Your task to perform on an android device: turn off improve location accuracy Image 0: 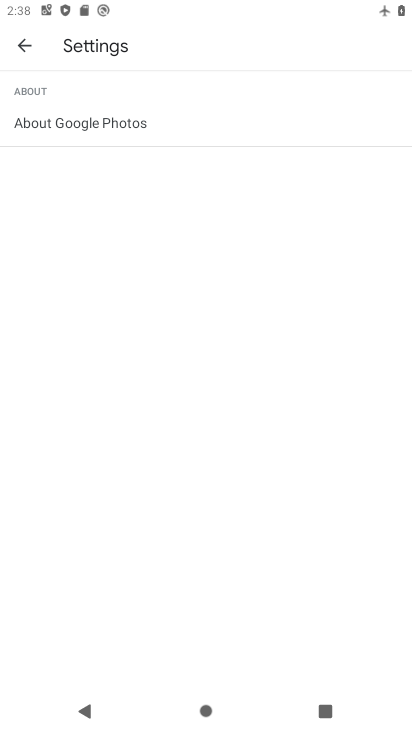
Step 0: press home button
Your task to perform on an android device: turn off improve location accuracy Image 1: 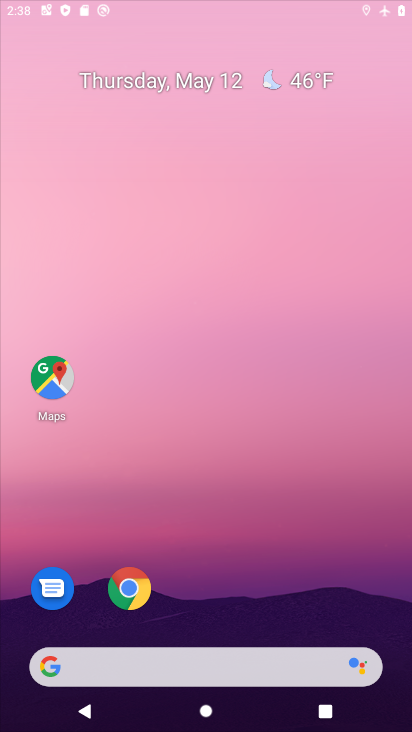
Step 1: drag from (375, 583) to (345, 63)
Your task to perform on an android device: turn off improve location accuracy Image 2: 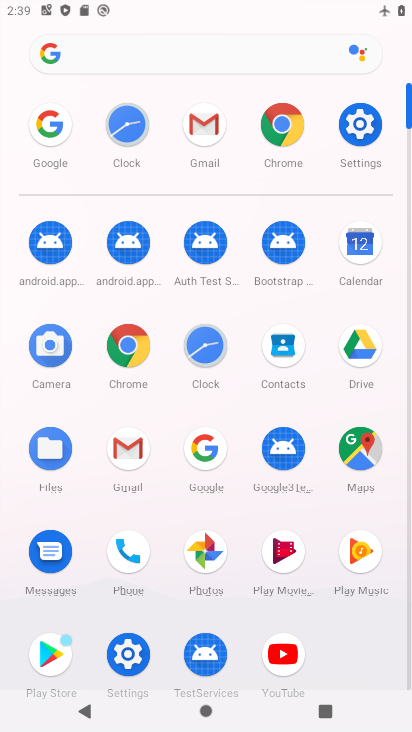
Step 2: click (111, 653)
Your task to perform on an android device: turn off improve location accuracy Image 3: 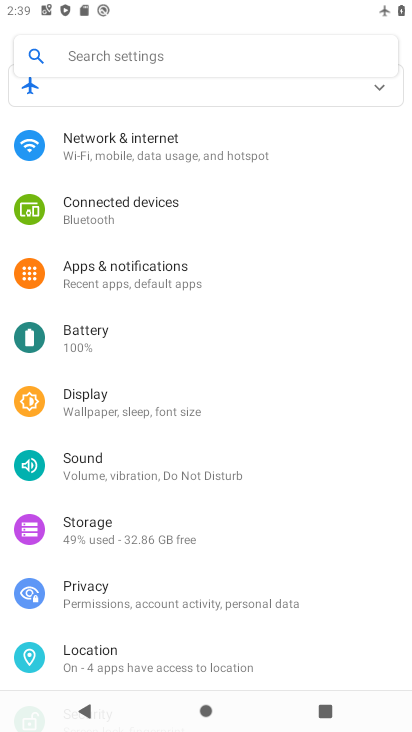
Step 3: click (117, 650)
Your task to perform on an android device: turn off improve location accuracy Image 4: 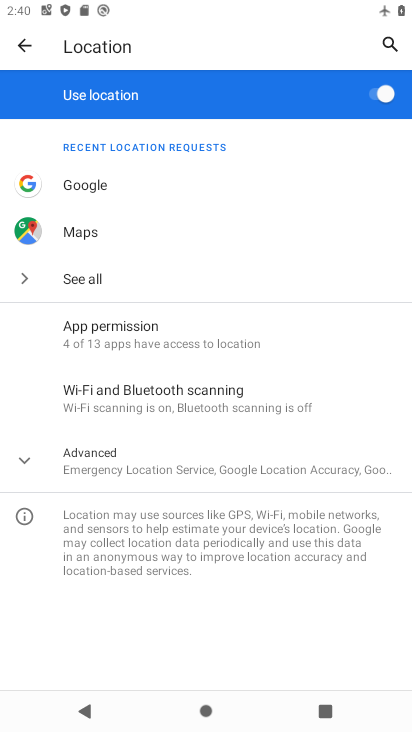
Step 4: click (168, 463)
Your task to perform on an android device: turn off improve location accuracy Image 5: 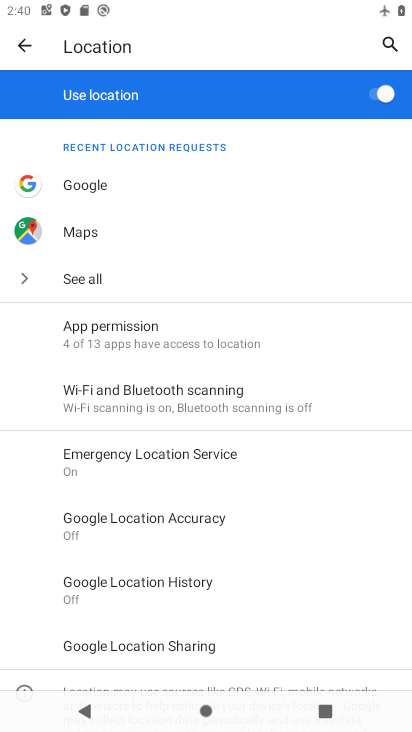
Step 5: click (189, 528)
Your task to perform on an android device: turn off improve location accuracy Image 6: 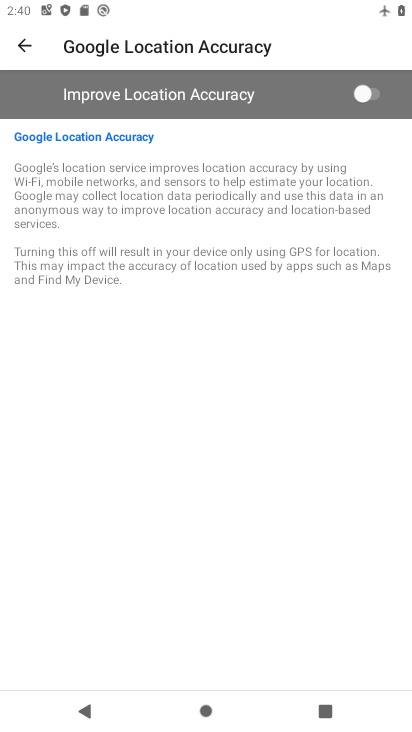
Step 6: task complete